Your task to perform on an android device: turn off priority inbox in the gmail app Image 0: 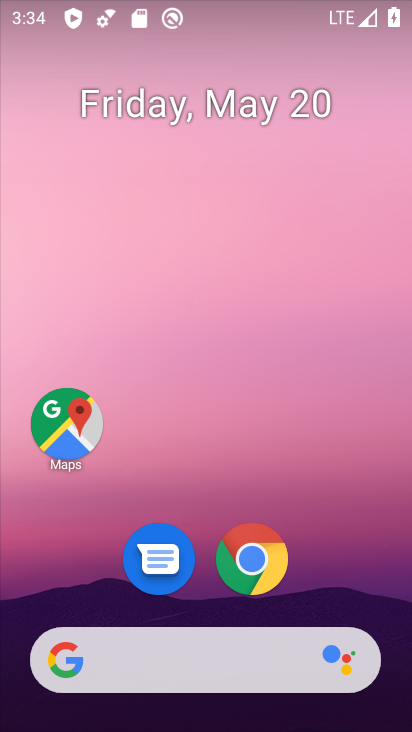
Step 0: drag from (338, 539) to (307, 55)
Your task to perform on an android device: turn off priority inbox in the gmail app Image 1: 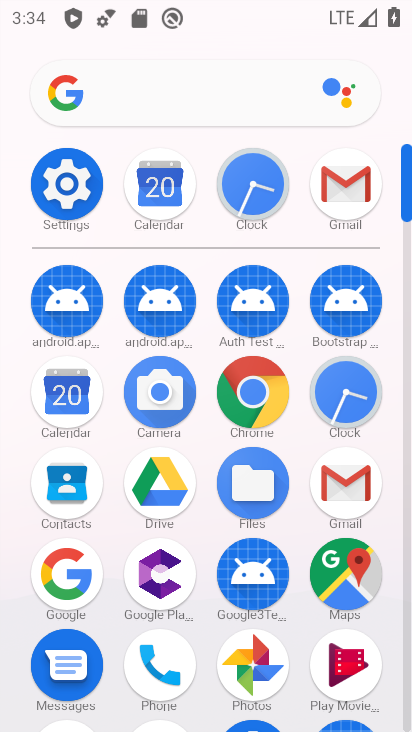
Step 1: click (363, 182)
Your task to perform on an android device: turn off priority inbox in the gmail app Image 2: 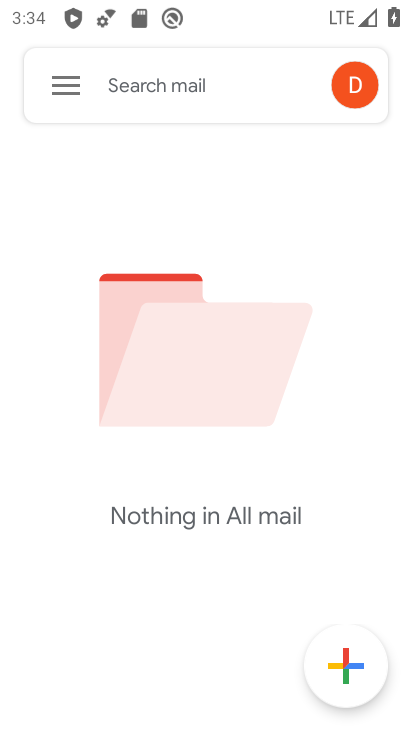
Step 2: click (70, 88)
Your task to perform on an android device: turn off priority inbox in the gmail app Image 3: 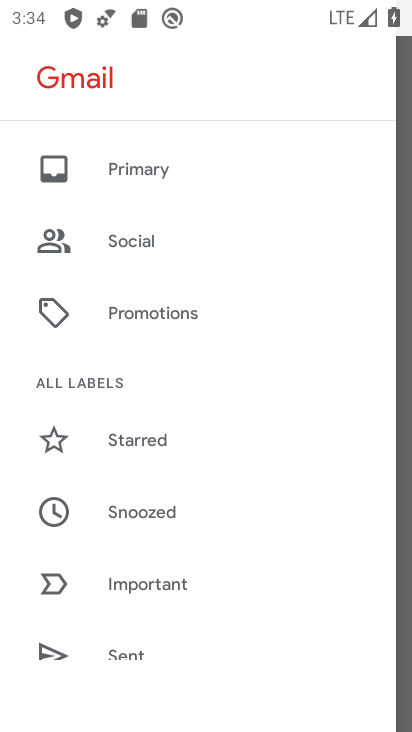
Step 3: drag from (212, 540) to (239, 145)
Your task to perform on an android device: turn off priority inbox in the gmail app Image 4: 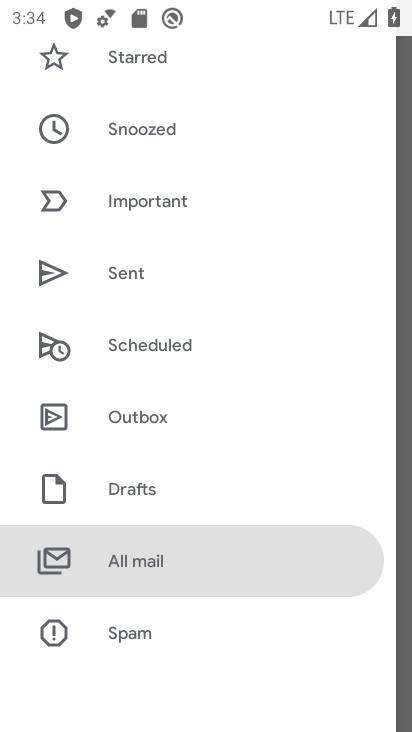
Step 4: drag from (240, 394) to (261, 83)
Your task to perform on an android device: turn off priority inbox in the gmail app Image 5: 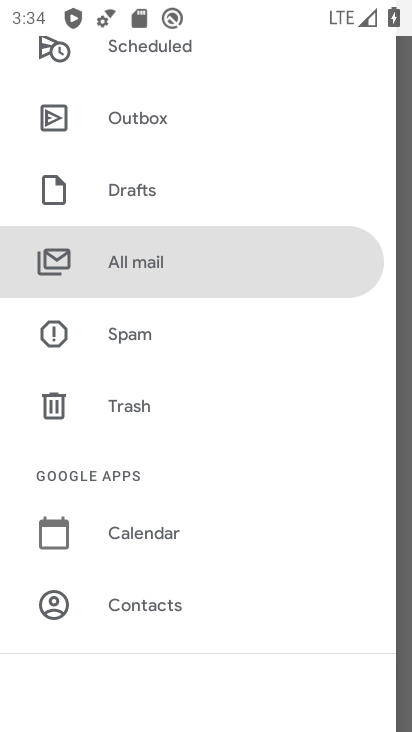
Step 5: drag from (252, 462) to (264, 157)
Your task to perform on an android device: turn off priority inbox in the gmail app Image 6: 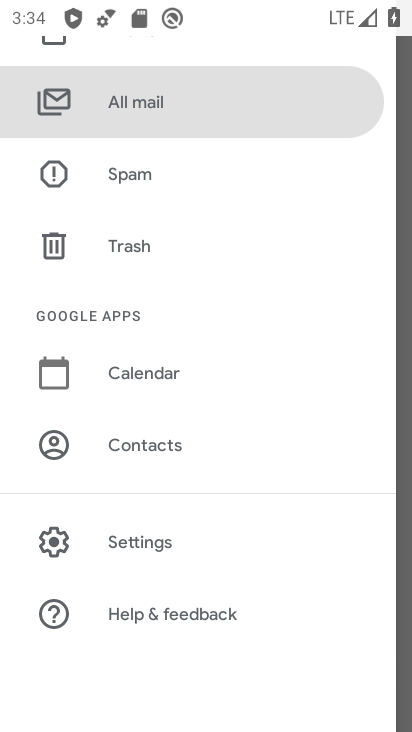
Step 6: click (174, 542)
Your task to perform on an android device: turn off priority inbox in the gmail app Image 7: 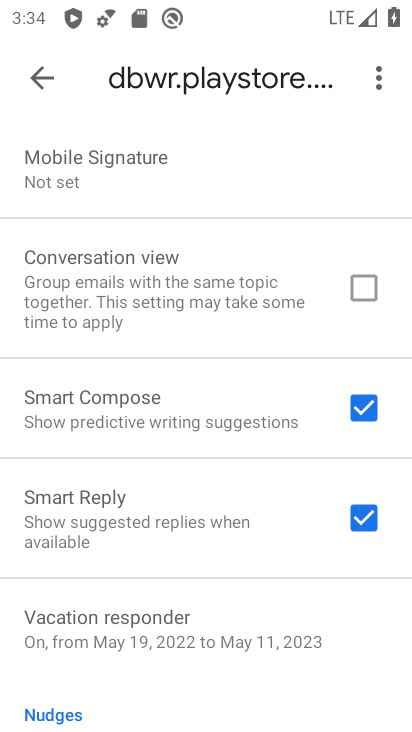
Step 7: drag from (212, 525) to (264, 686)
Your task to perform on an android device: turn off priority inbox in the gmail app Image 8: 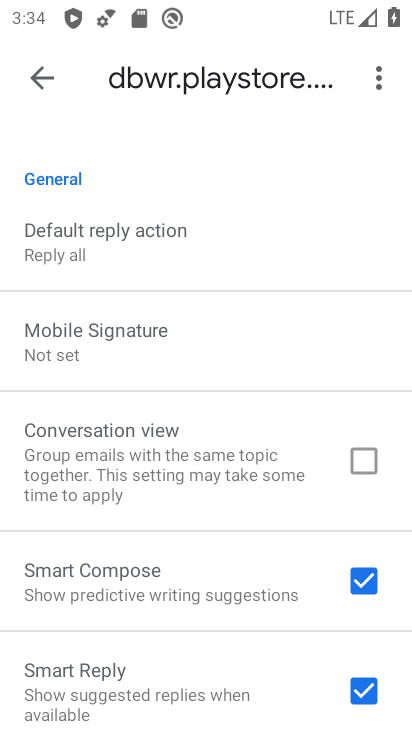
Step 8: drag from (204, 309) to (222, 654)
Your task to perform on an android device: turn off priority inbox in the gmail app Image 9: 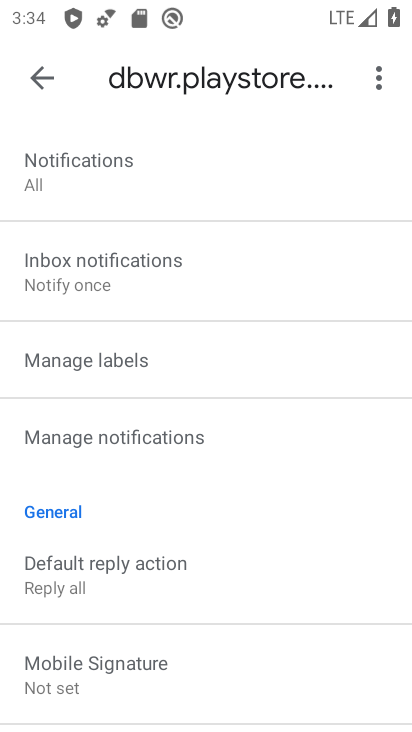
Step 9: drag from (193, 230) to (216, 677)
Your task to perform on an android device: turn off priority inbox in the gmail app Image 10: 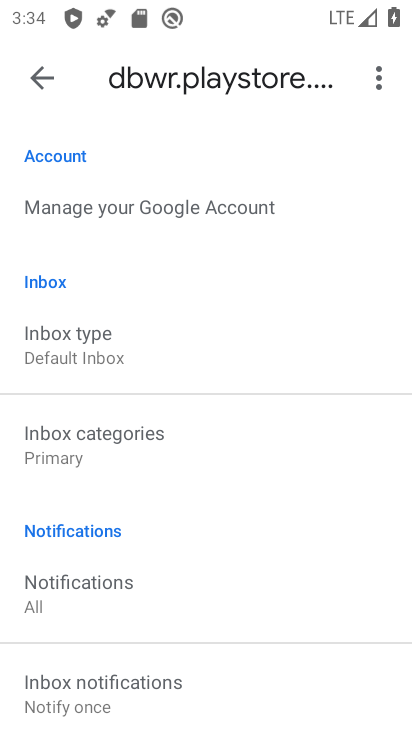
Step 10: click (88, 333)
Your task to perform on an android device: turn off priority inbox in the gmail app Image 11: 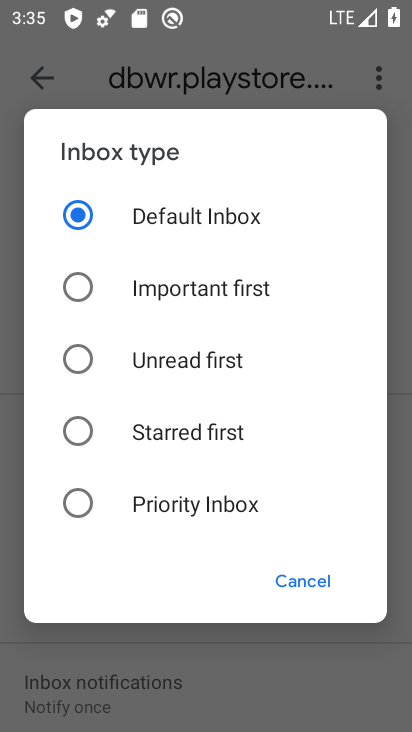
Step 11: click (315, 569)
Your task to perform on an android device: turn off priority inbox in the gmail app Image 12: 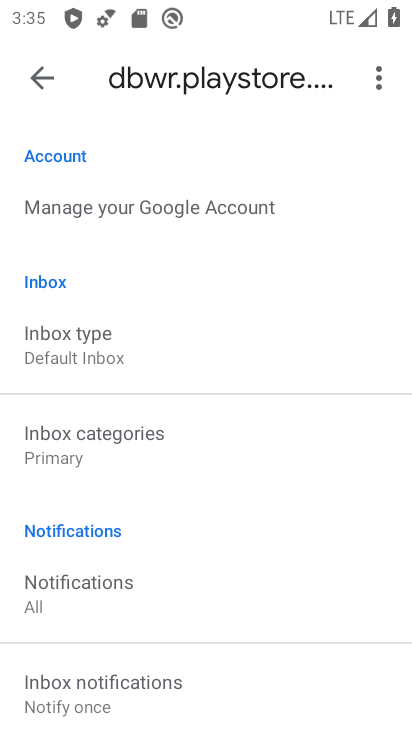
Step 12: task complete